Your task to perform on an android device: Open the Play Movies app and select the watchlist tab. Image 0: 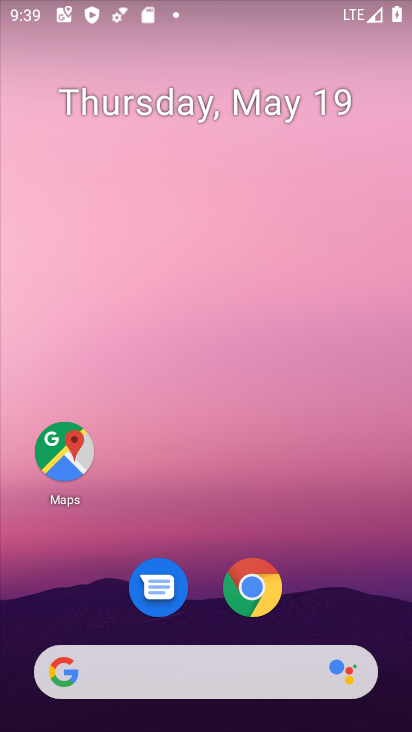
Step 0: drag from (222, 610) to (227, 94)
Your task to perform on an android device: Open the Play Movies app and select the watchlist tab. Image 1: 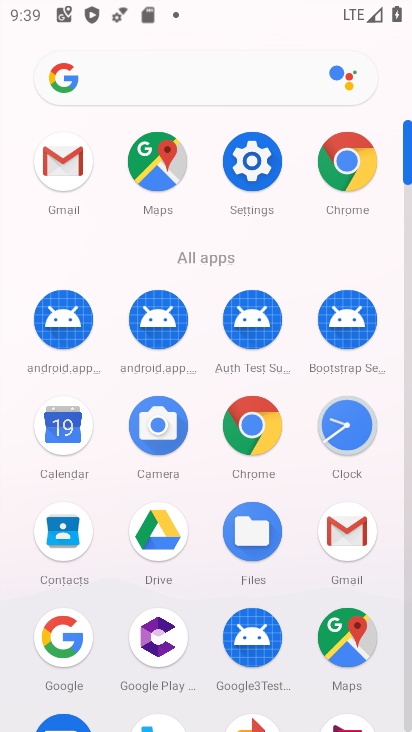
Step 1: drag from (198, 582) to (195, 242)
Your task to perform on an android device: Open the Play Movies app and select the watchlist tab. Image 2: 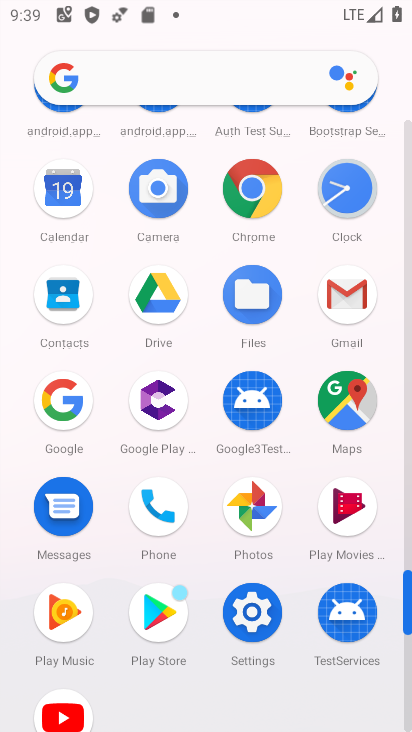
Step 2: click (360, 499)
Your task to perform on an android device: Open the Play Movies app and select the watchlist tab. Image 3: 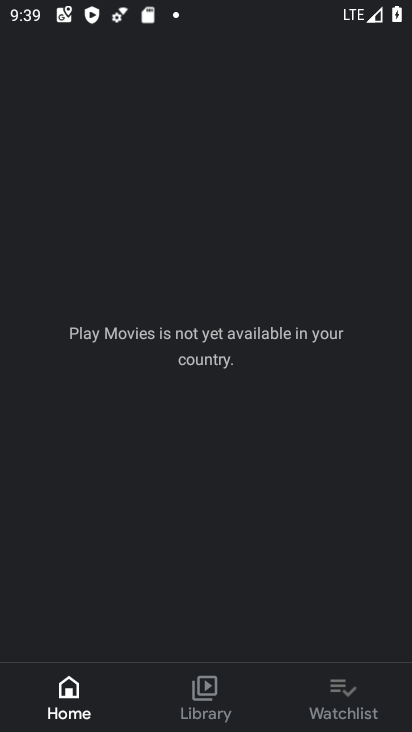
Step 3: click (347, 715)
Your task to perform on an android device: Open the Play Movies app and select the watchlist tab. Image 4: 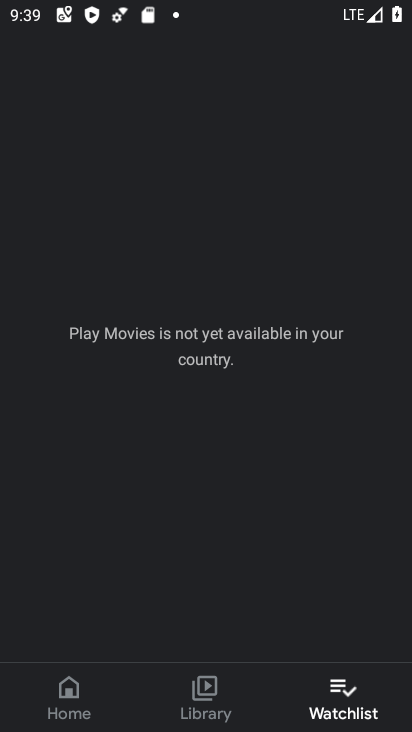
Step 4: task complete